Your task to perform on an android device: find which apps use the phone's location Image 0: 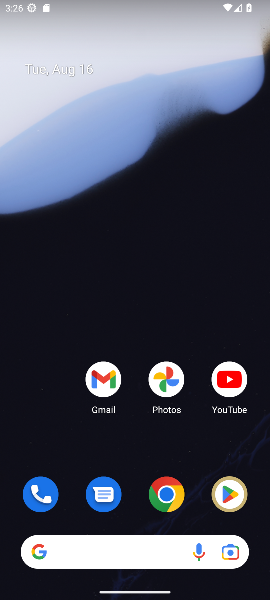
Step 0: drag from (139, 534) to (112, 61)
Your task to perform on an android device: find which apps use the phone's location Image 1: 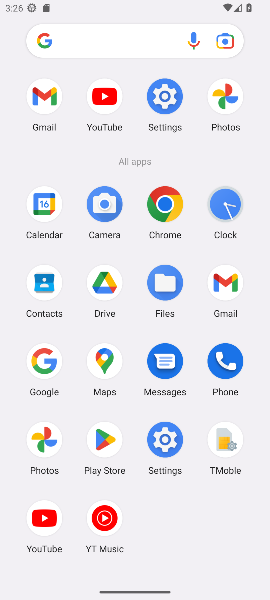
Step 1: click (173, 445)
Your task to perform on an android device: find which apps use the phone's location Image 2: 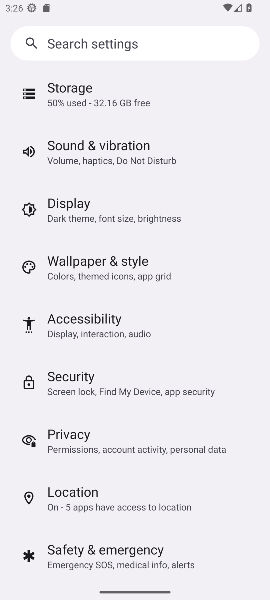
Step 2: drag from (79, 267) to (59, 561)
Your task to perform on an android device: find which apps use the phone's location Image 3: 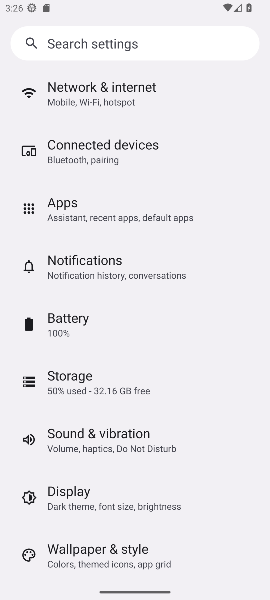
Step 3: click (62, 209)
Your task to perform on an android device: find which apps use the phone's location Image 4: 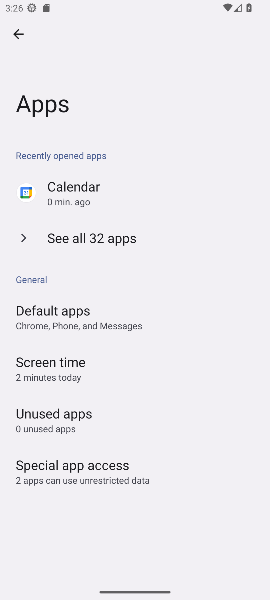
Step 4: click (55, 239)
Your task to perform on an android device: find which apps use the phone's location Image 5: 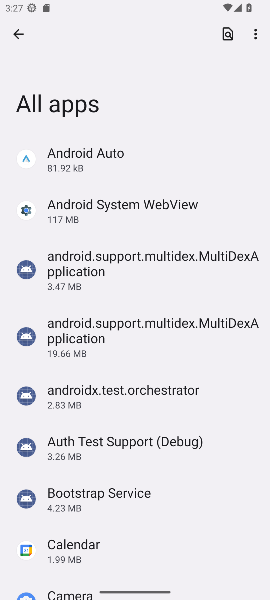
Step 5: task complete